Your task to perform on an android device: Go to network settings Image 0: 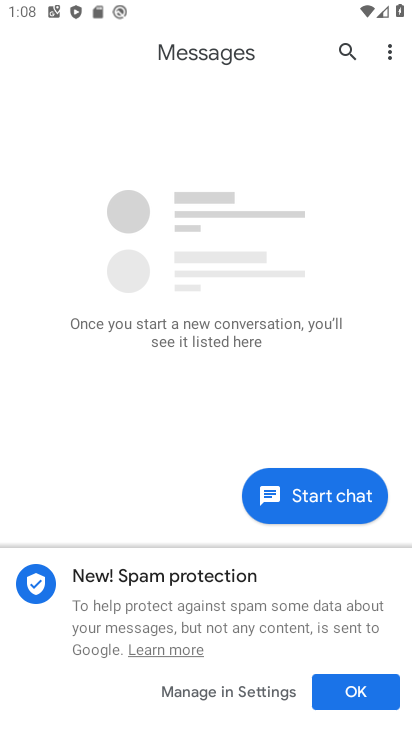
Step 0: press back button
Your task to perform on an android device: Go to network settings Image 1: 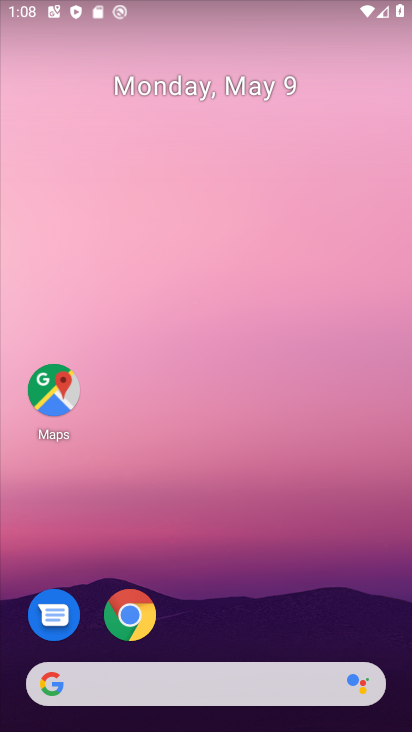
Step 1: drag from (215, 541) to (125, 66)
Your task to perform on an android device: Go to network settings Image 2: 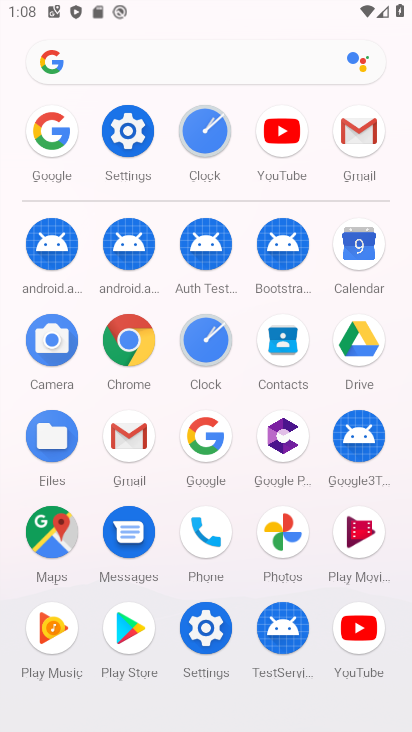
Step 2: click (127, 131)
Your task to perform on an android device: Go to network settings Image 3: 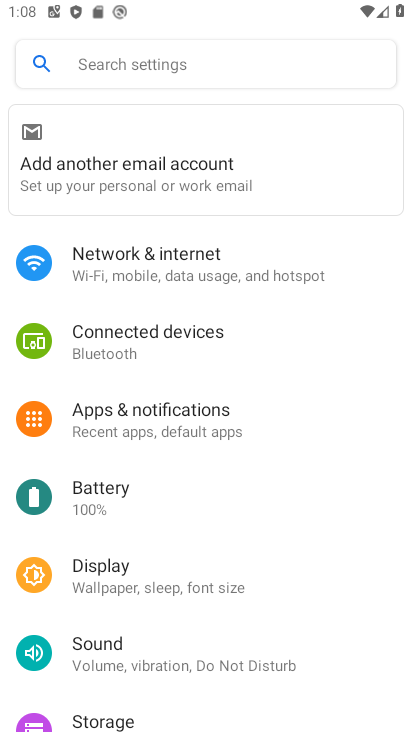
Step 3: click (112, 259)
Your task to perform on an android device: Go to network settings Image 4: 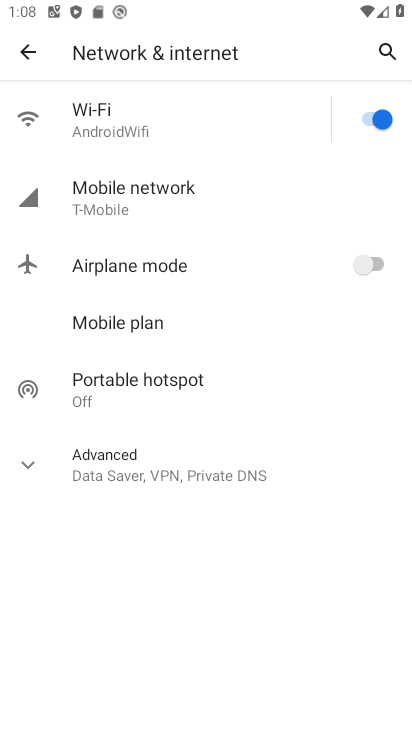
Step 4: click (161, 195)
Your task to perform on an android device: Go to network settings Image 5: 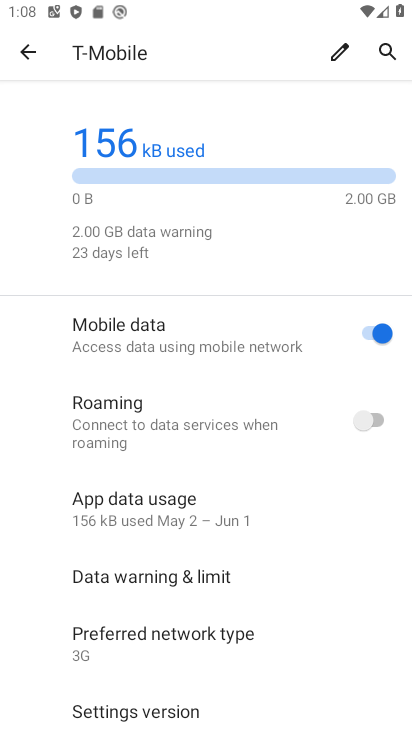
Step 5: task complete